Your task to perform on an android device: see sites visited before in the chrome app Image 0: 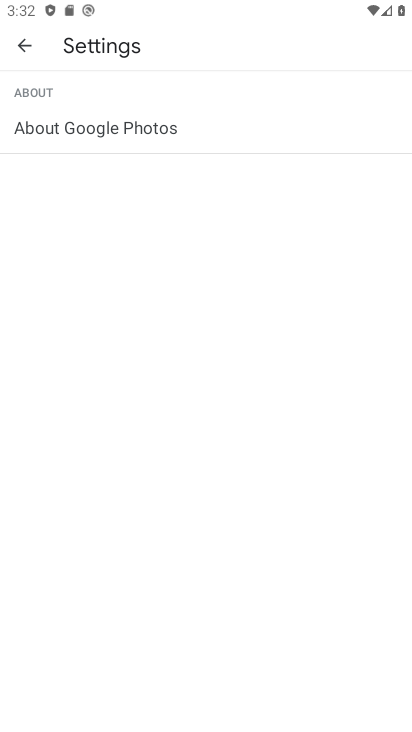
Step 0: press home button
Your task to perform on an android device: see sites visited before in the chrome app Image 1: 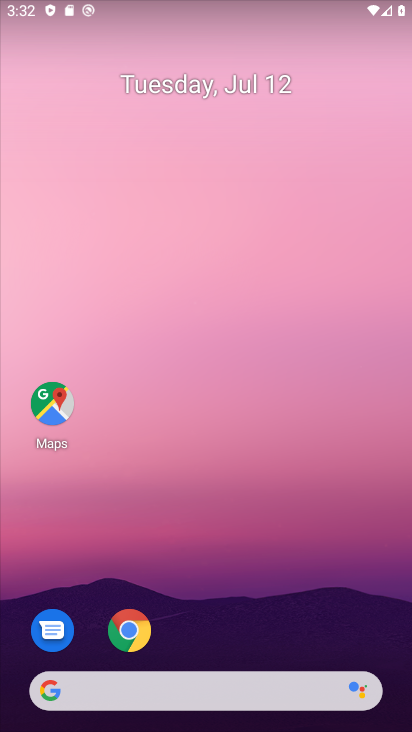
Step 1: click (225, 531)
Your task to perform on an android device: see sites visited before in the chrome app Image 2: 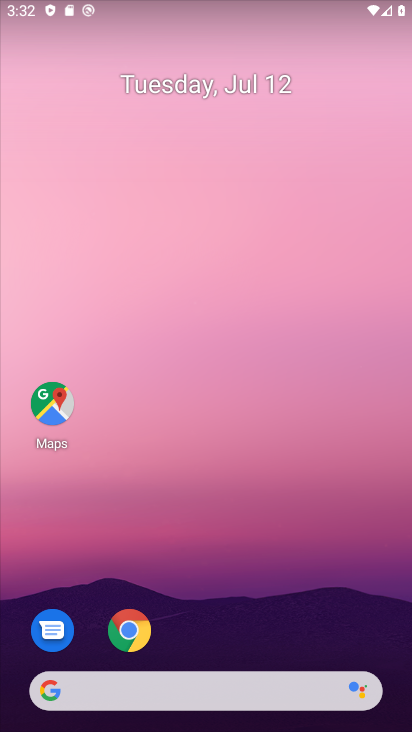
Step 2: click (133, 617)
Your task to perform on an android device: see sites visited before in the chrome app Image 3: 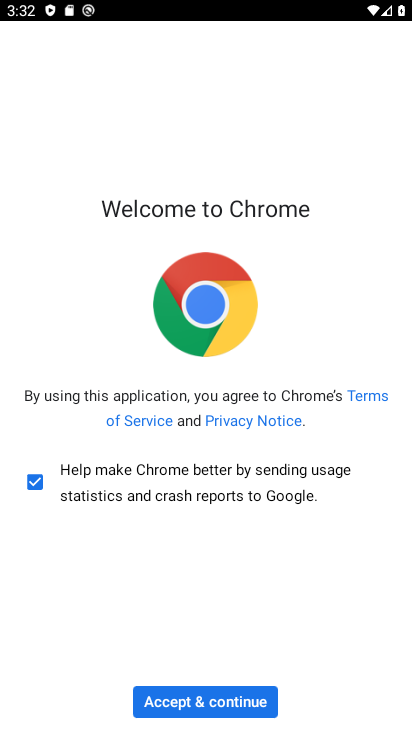
Step 3: click (204, 686)
Your task to perform on an android device: see sites visited before in the chrome app Image 4: 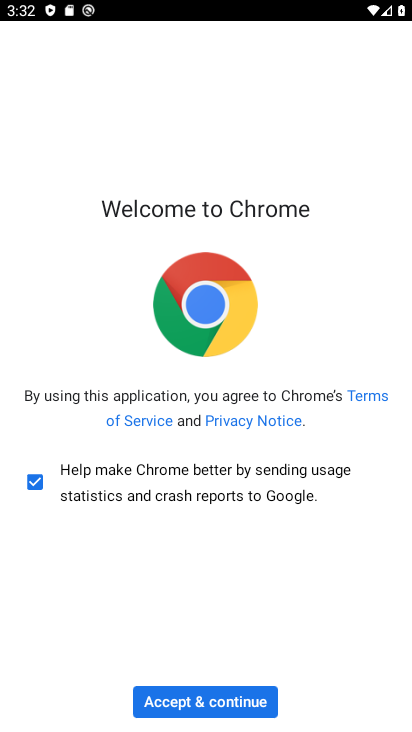
Step 4: click (204, 707)
Your task to perform on an android device: see sites visited before in the chrome app Image 5: 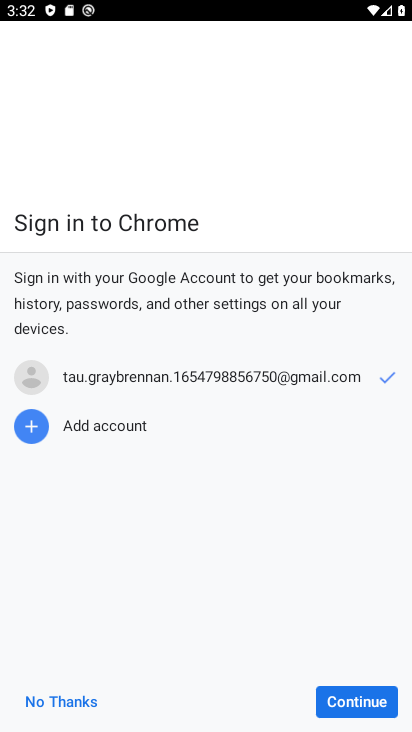
Step 5: click (344, 707)
Your task to perform on an android device: see sites visited before in the chrome app Image 6: 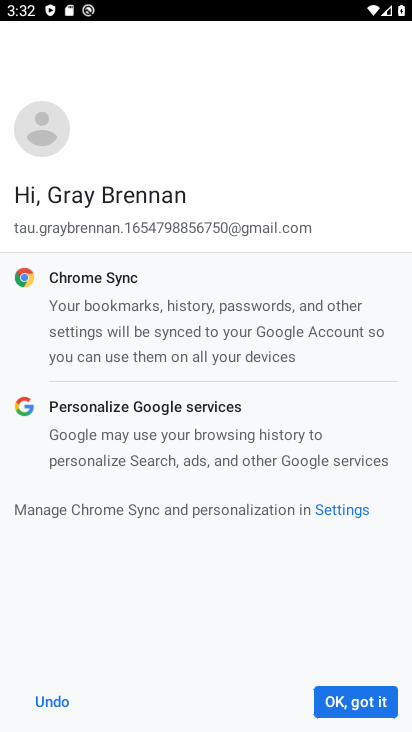
Step 6: click (344, 707)
Your task to perform on an android device: see sites visited before in the chrome app Image 7: 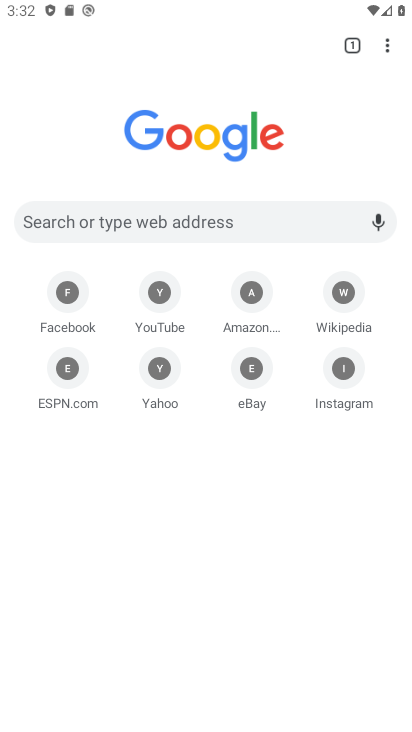
Step 7: click (395, 47)
Your task to perform on an android device: see sites visited before in the chrome app Image 8: 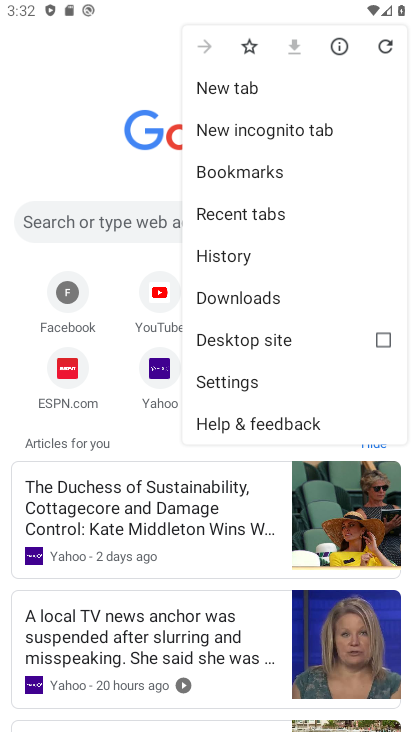
Step 8: click (218, 250)
Your task to perform on an android device: see sites visited before in the chrome app Image 9: 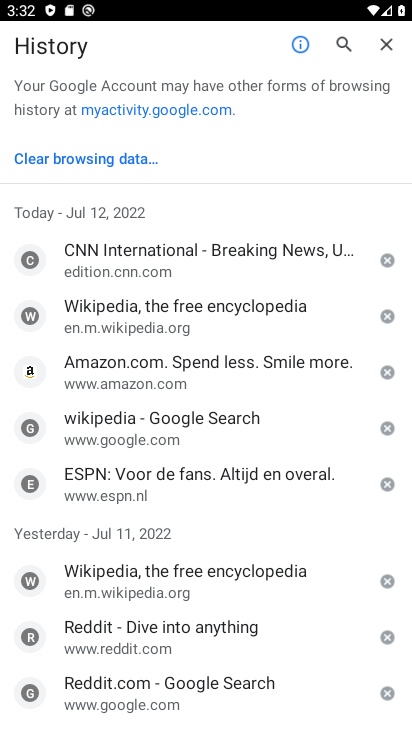
Step 9: task complete